Your task to perform on an android device: How much does a 3 bedroom apartment rent for in Washington DC? Image 0: 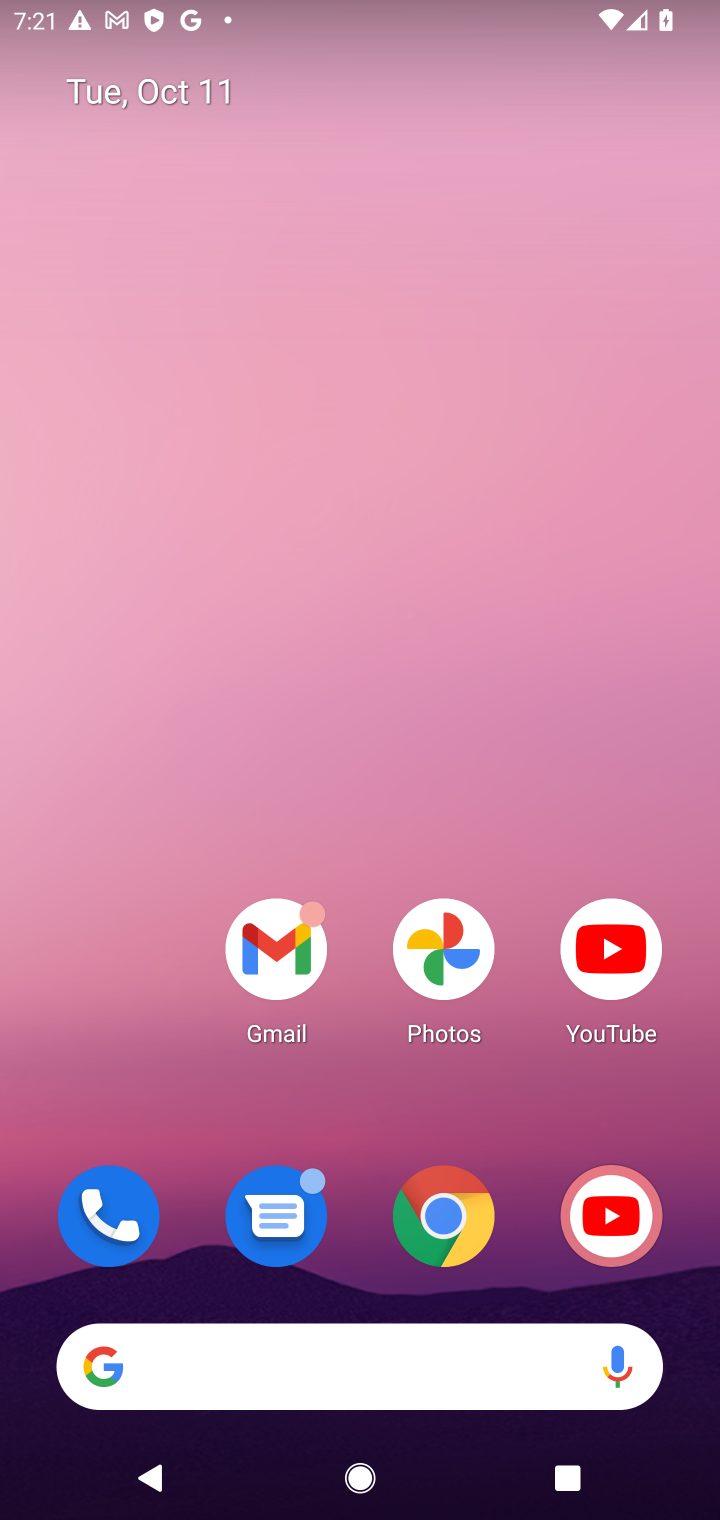
Step 0: click (479, 1081)
Your task to perform on an android device: How much does a 3 bedroom apartment rent for in Washington DC? Image 1: 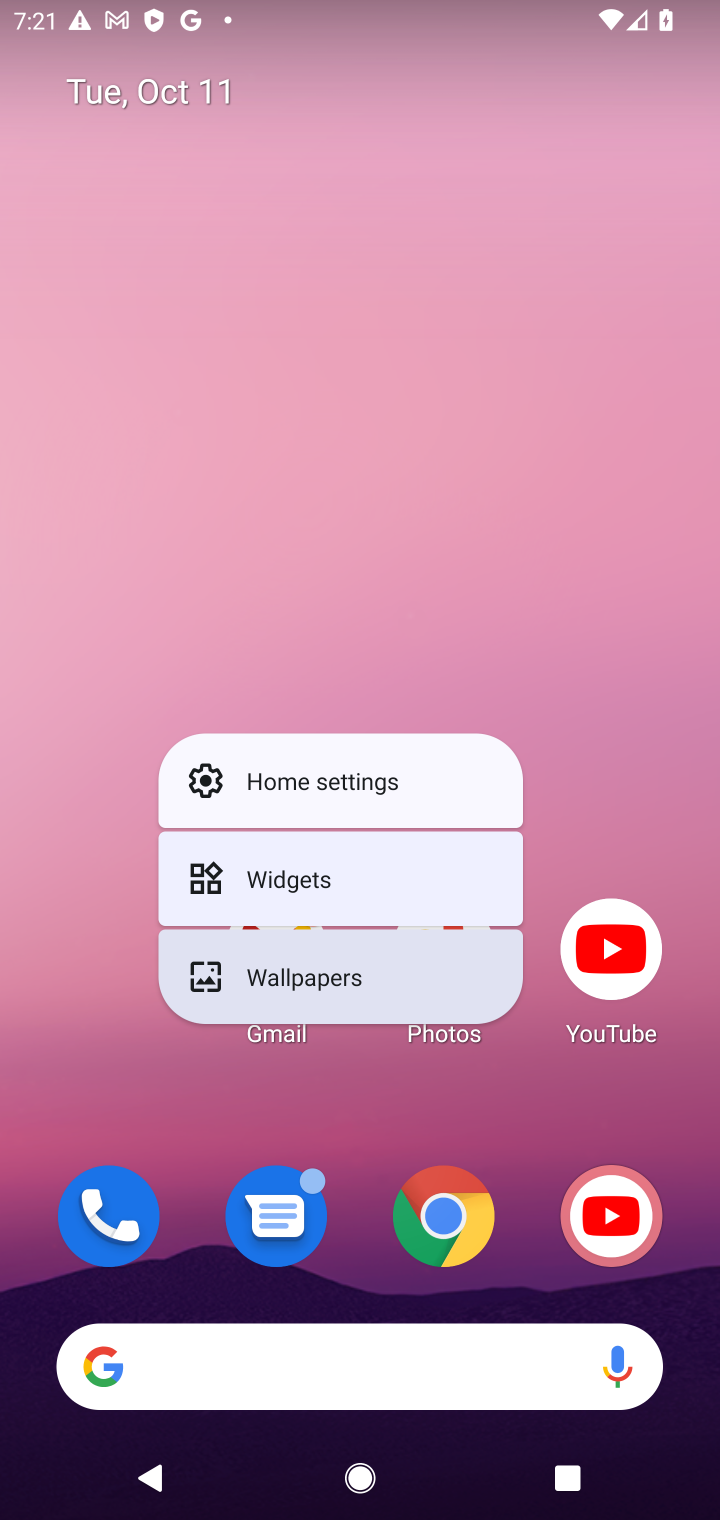
Step 1: click (462, 1239)
Your task to perform on an android device: How much does a 3 bedroom apartment rent for in Washington DC? Image 2: 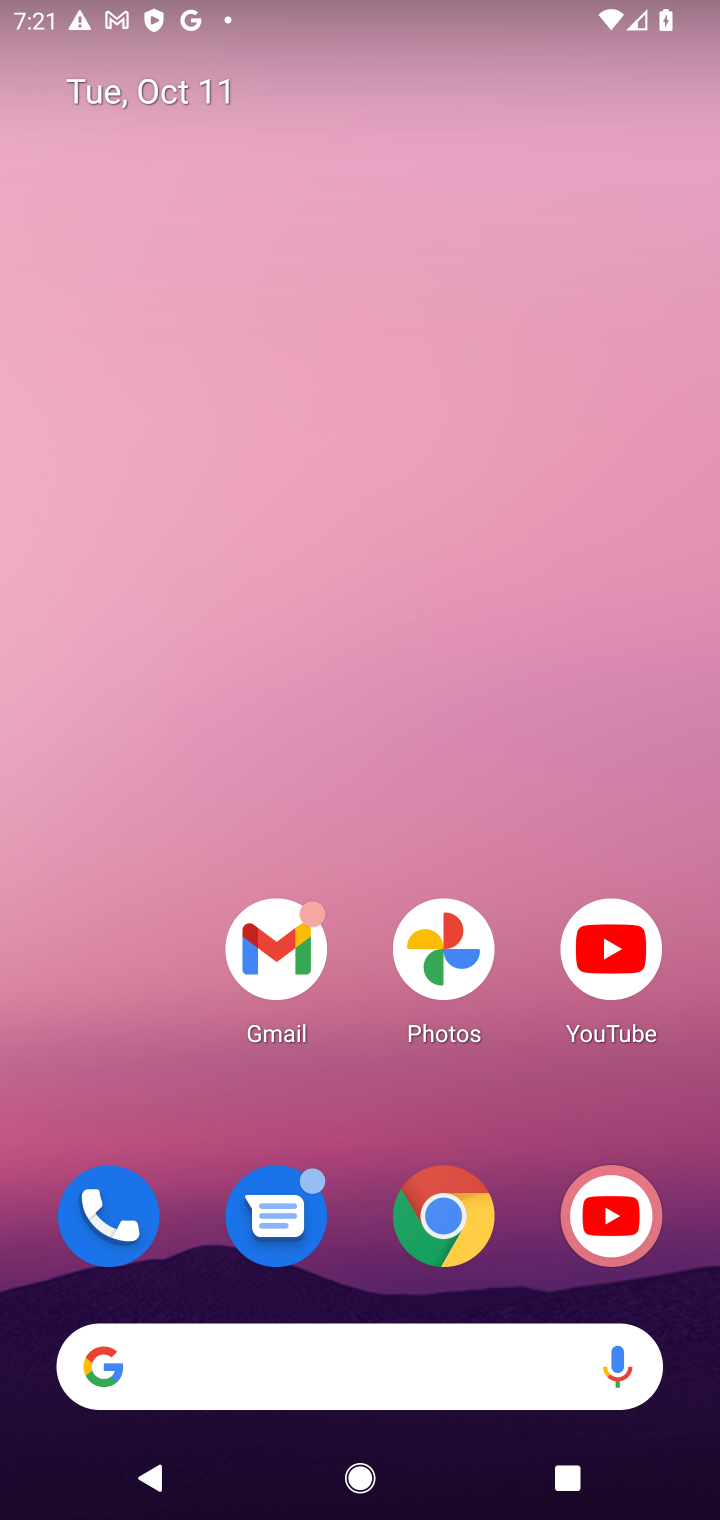
Step 2: click (462, 1239)
Your task to perform on an android device: How much does a 3 bedroom apartment rent for in Washington DC? Image 3: 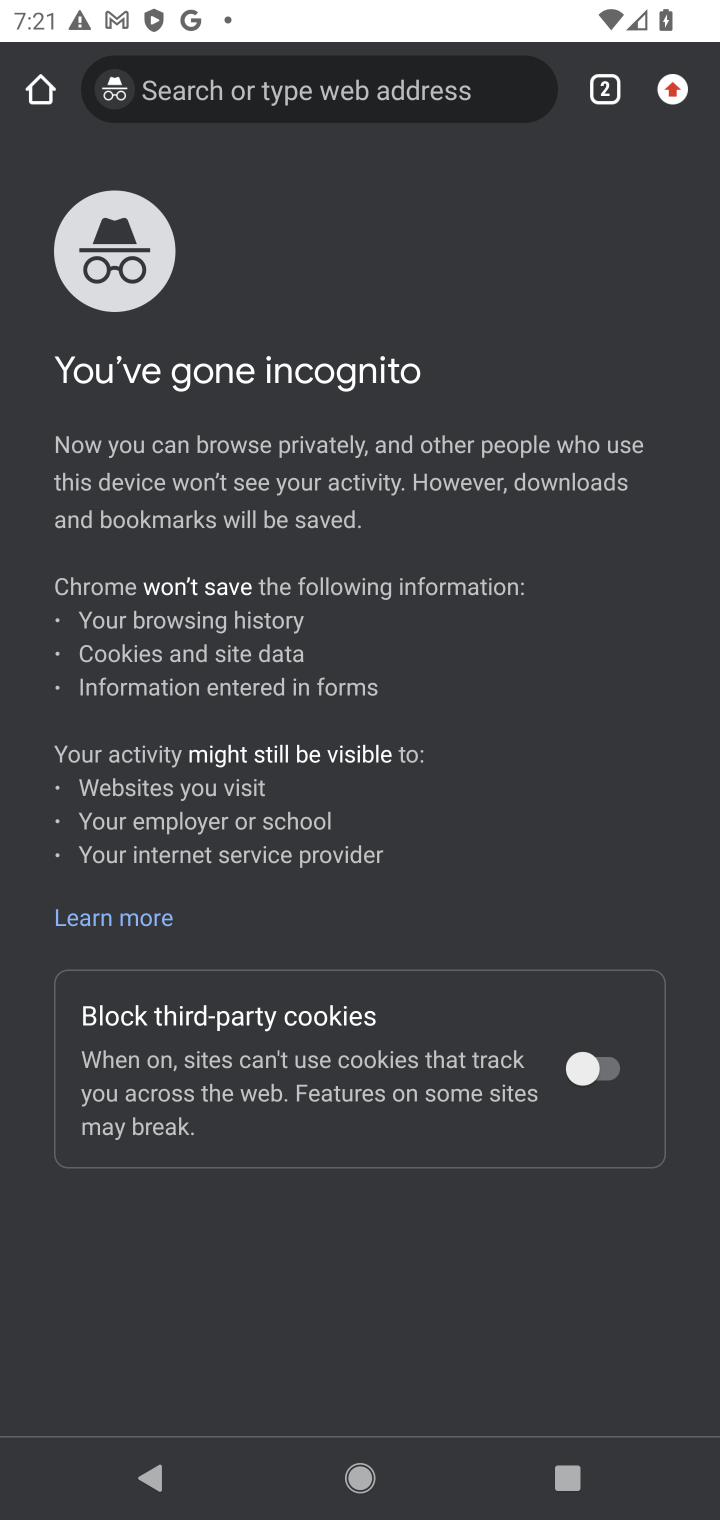
Step 3: click (607, 89)
Your task to perform on an android device: How much does a 3 bedroom apartment rent for in Washington DC? Image 4: 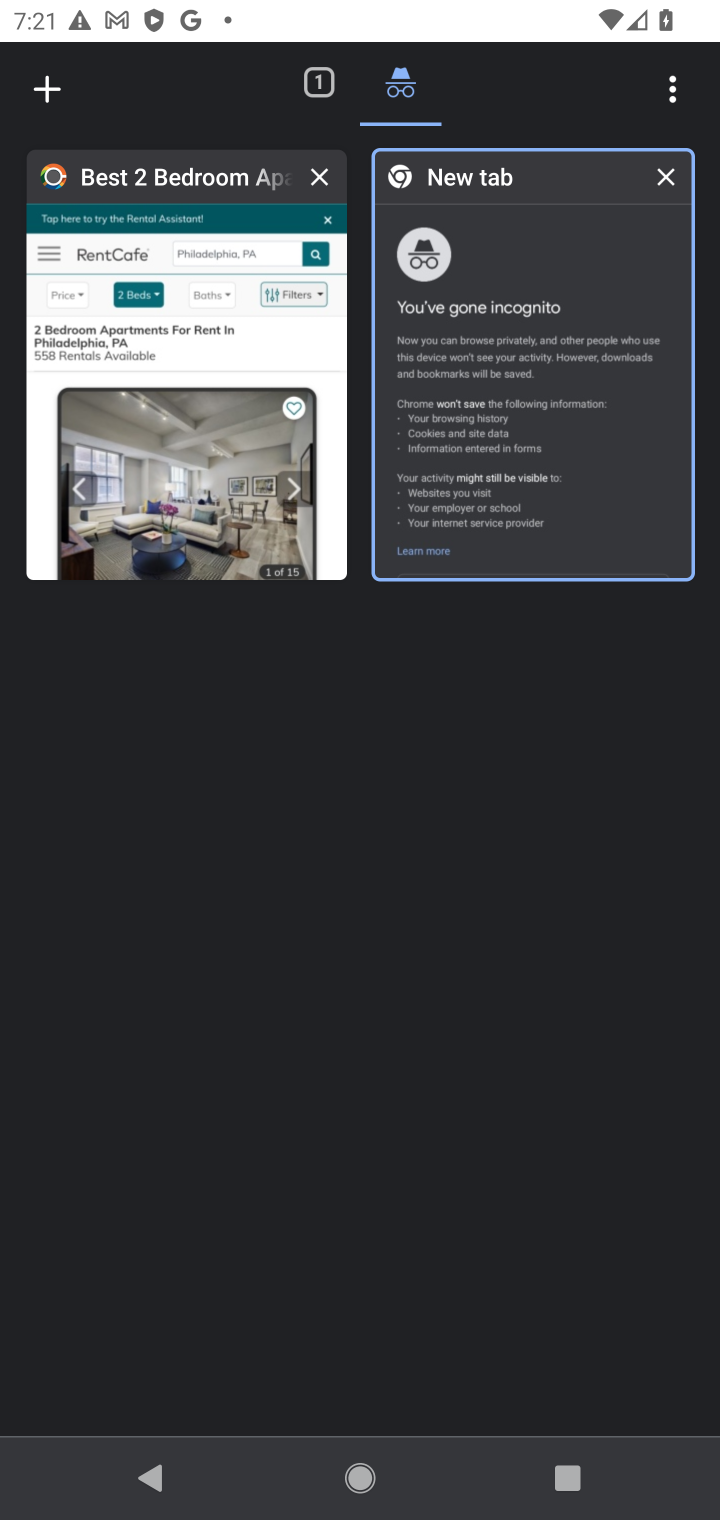
Step 4: click (337, 84)
Your task to perform on an android device: How much does a 3 bedroom apartment rent for in Washington DC? Image 5: 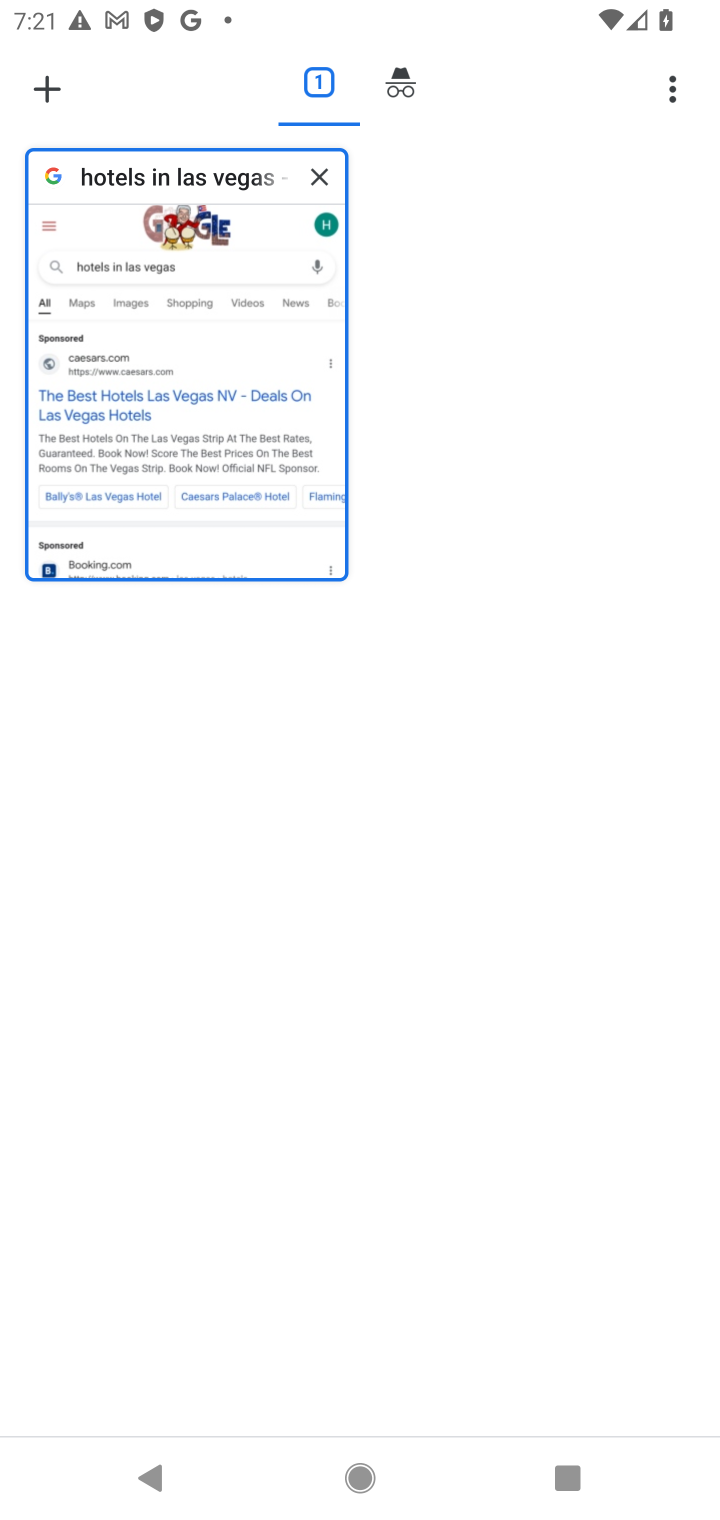
Step 5: click (243, 423)
Your task to perform on an android device: How much does a 3 bedroom apartment rent for in Washington DC? Image 6: 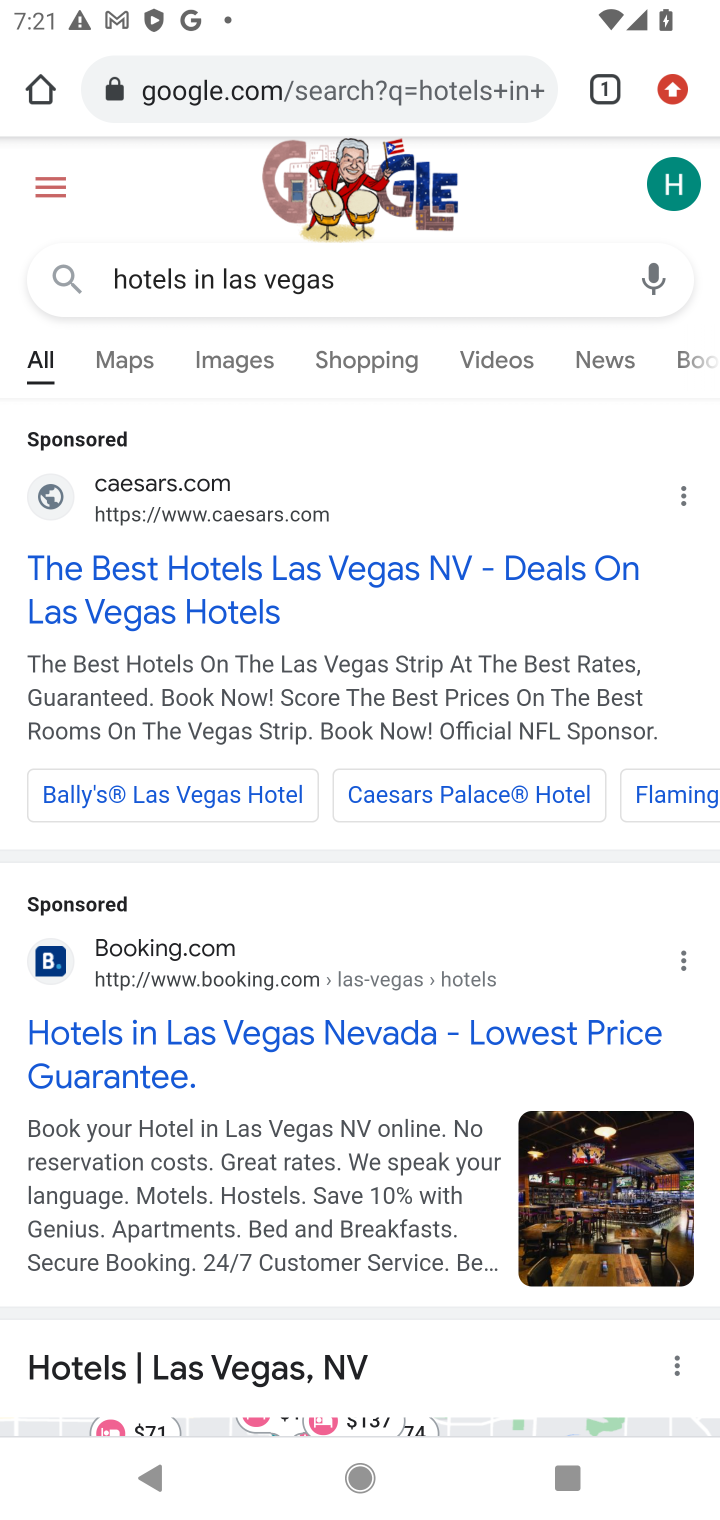
Step 6: click (377, 279)
Your task to perform on an android device: How much does a 3 bedroom apartment rent for in Washington DC? Image 7: 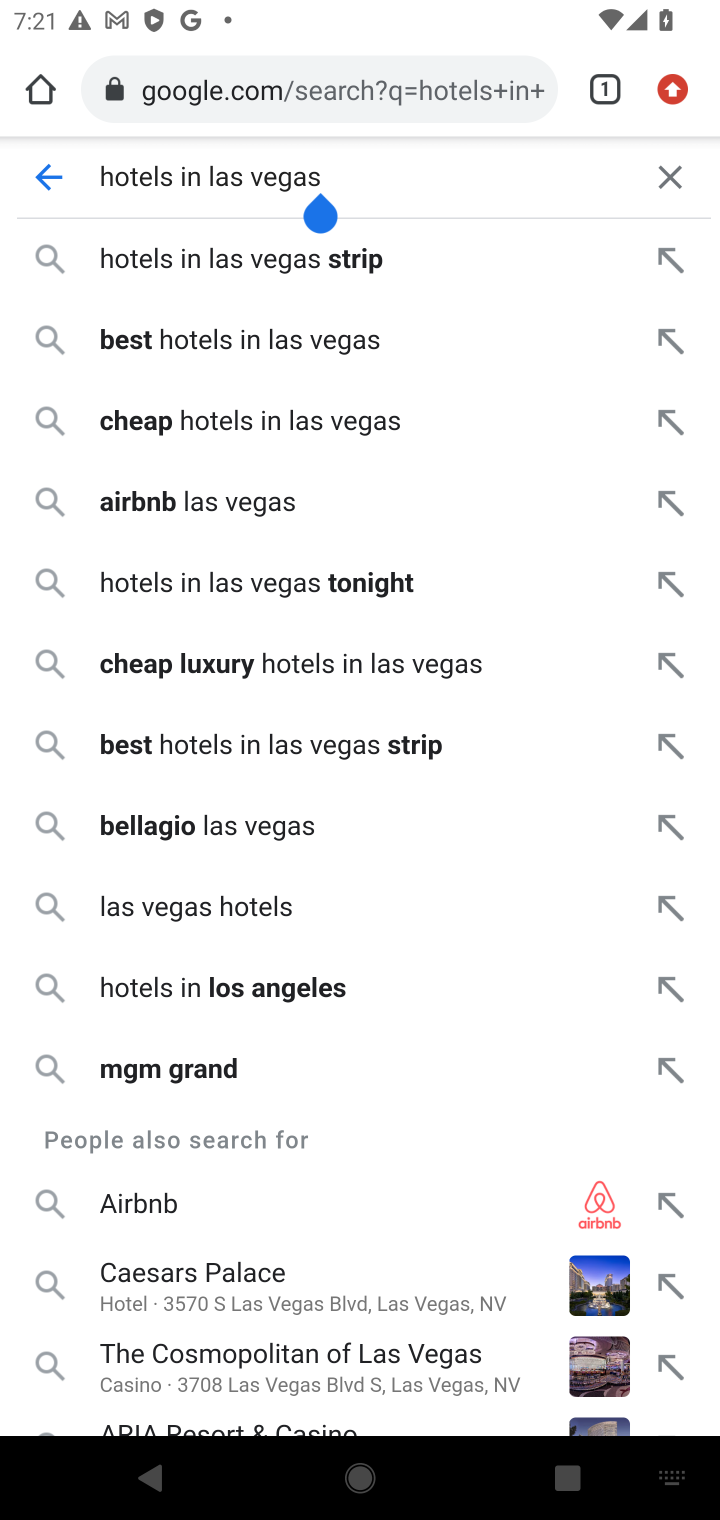
Step 7: click (668, 186)
Your task to perform on an android device: How much does a 3 bedroom apartment rent for in Washington DC? Image 8: 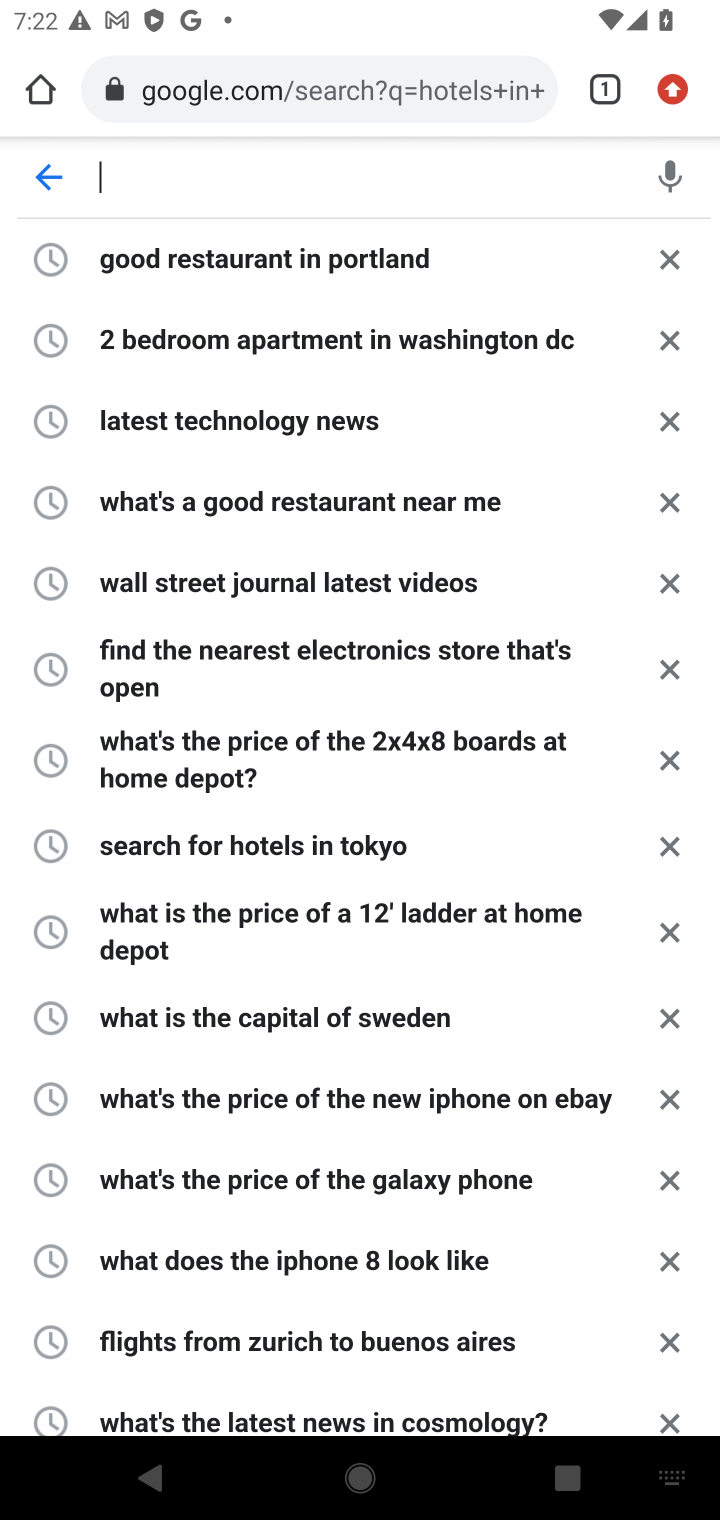
Step 8: type "How much does a 3 bedroom apartment rent for in Washington DC?"
Your task to perform on an android device: How much does a 3 bedroom apartment rent for in Washington DC? Image 9: 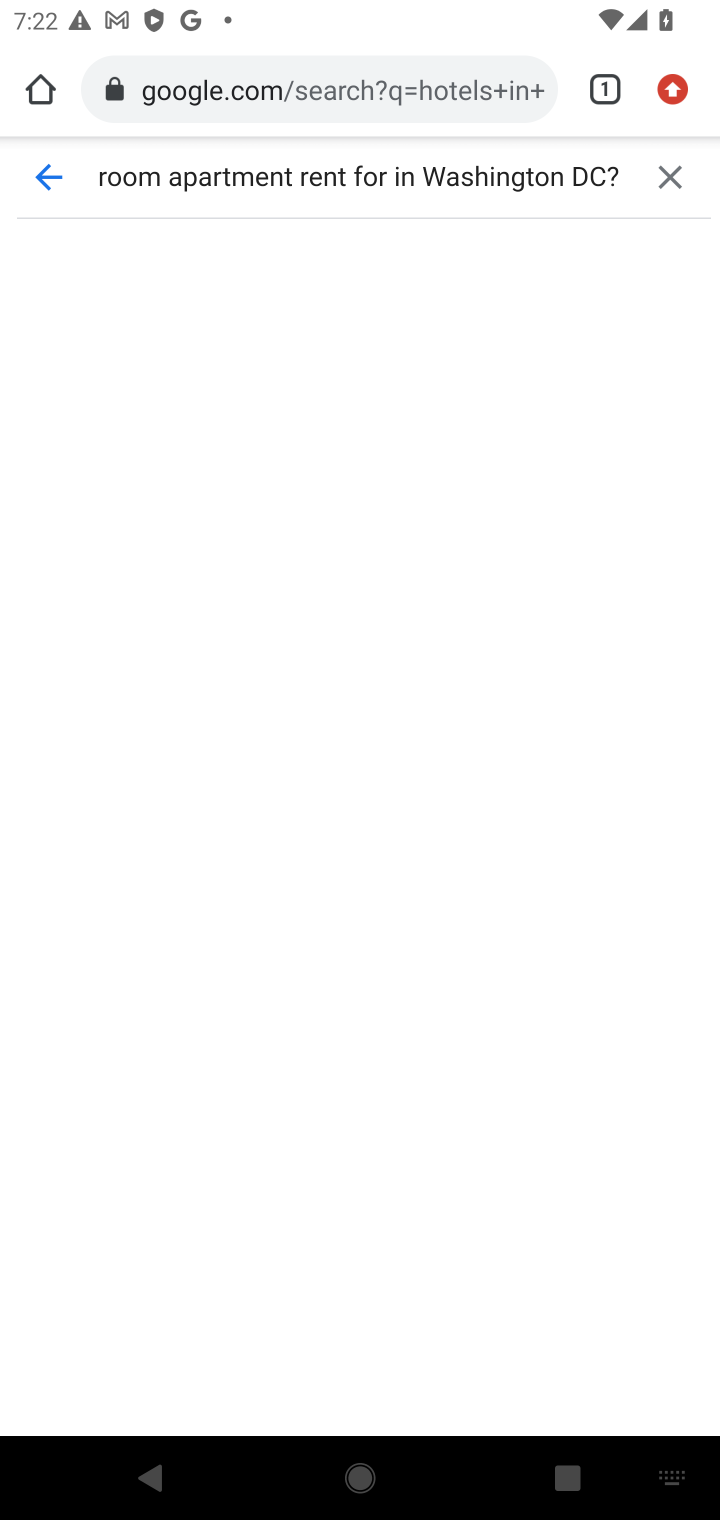
Step 9: press enter
Your task to perform on an android device: How much does a 3 bedroom apartment rent for in Washington DC? Image 10: 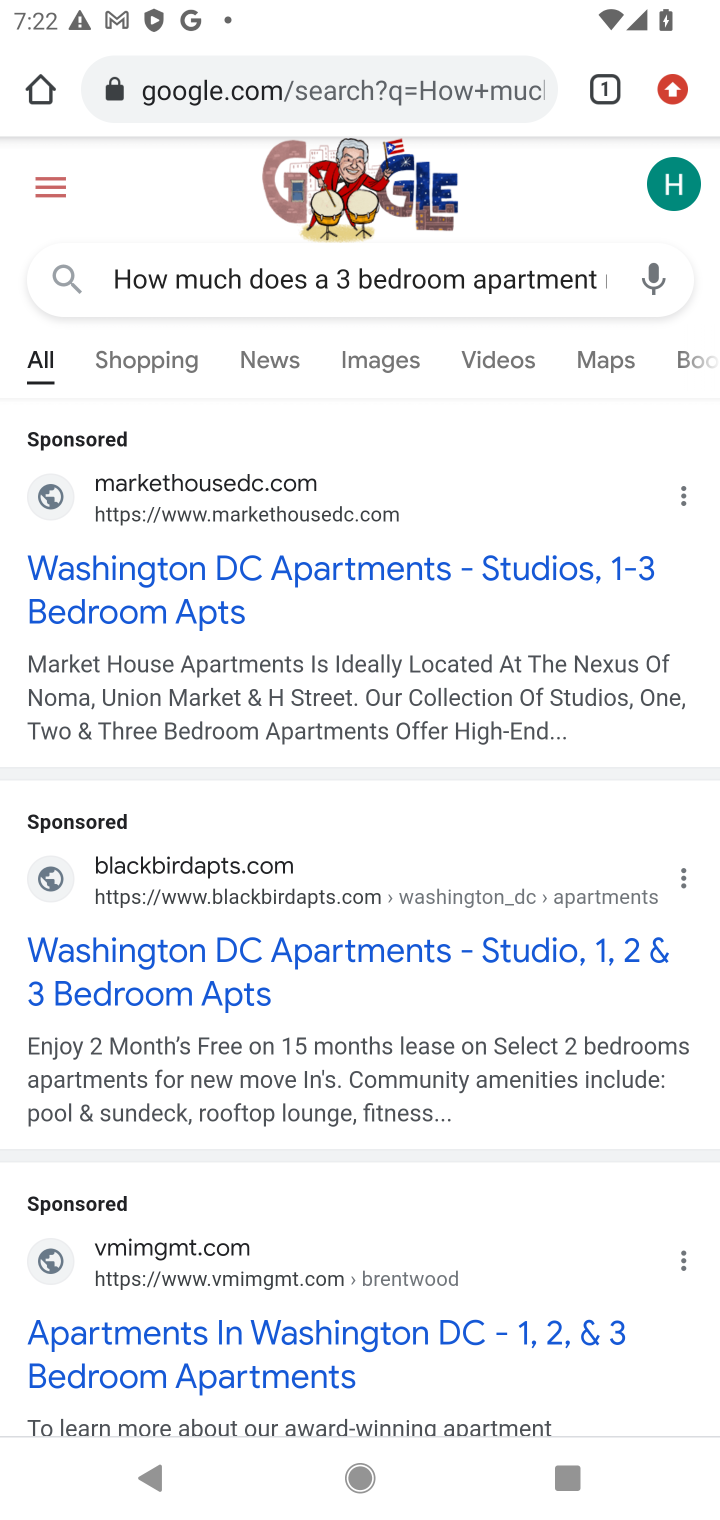
Step 10: drag from (374, 1158) to (376, 470)
Your task to perform on an android device: How much does a 3 bedroom apartment rent for in Washington DC? Image 11: 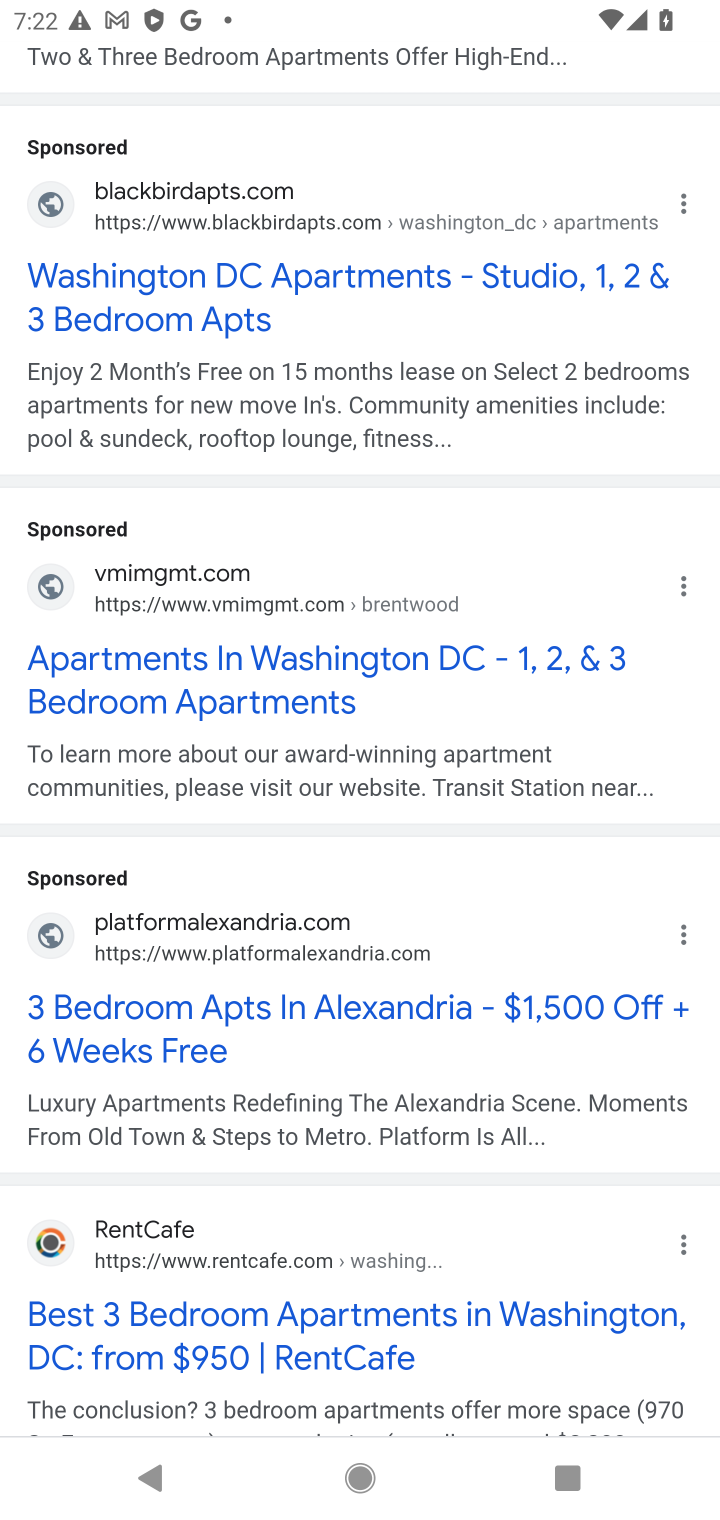
Step 11: click (282, 1337)
Your task to perform on an android device: How much does a 3 bedroom apartment rent for in Washington DC? Image 12: 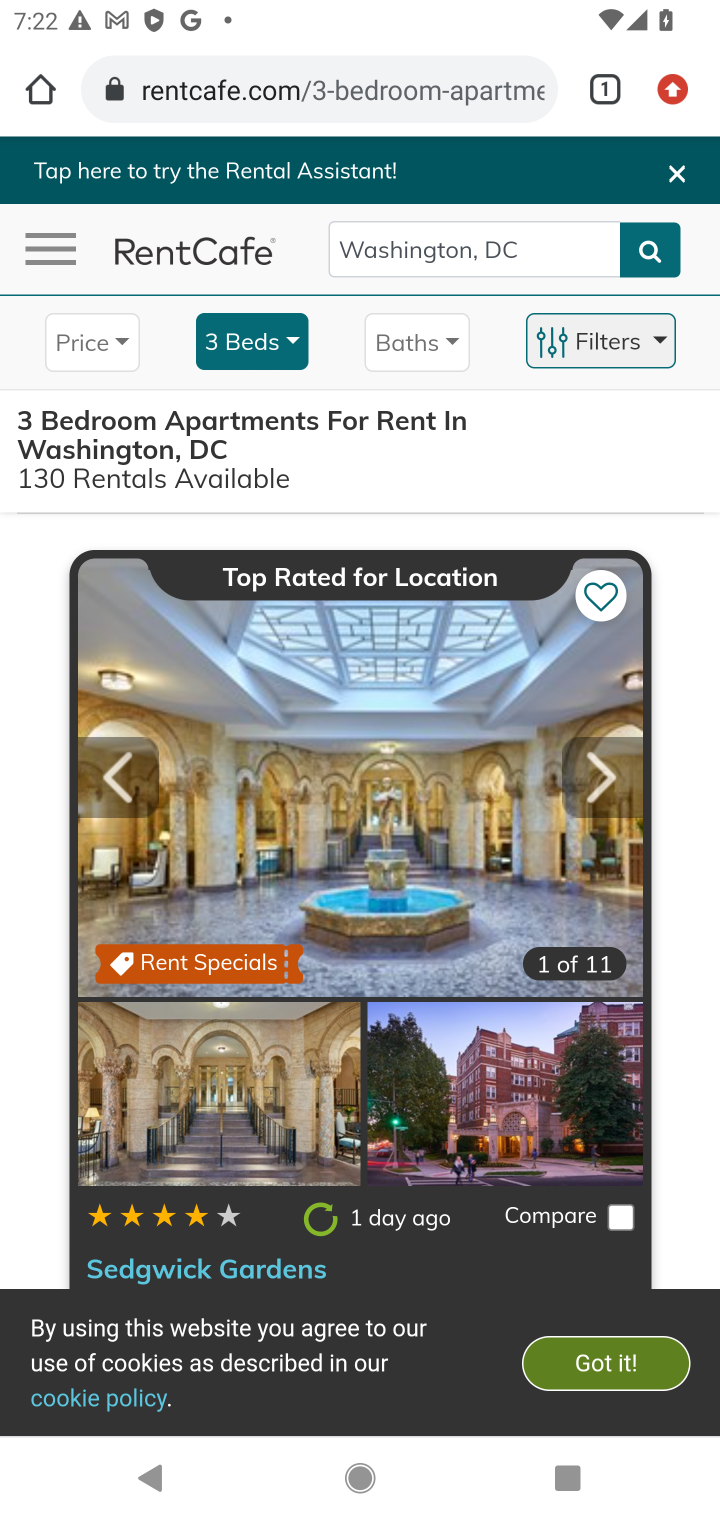
Step 12: task complete